Your task to perform on an android device: Open Google Chrome and open the bookmarks view Image 0: 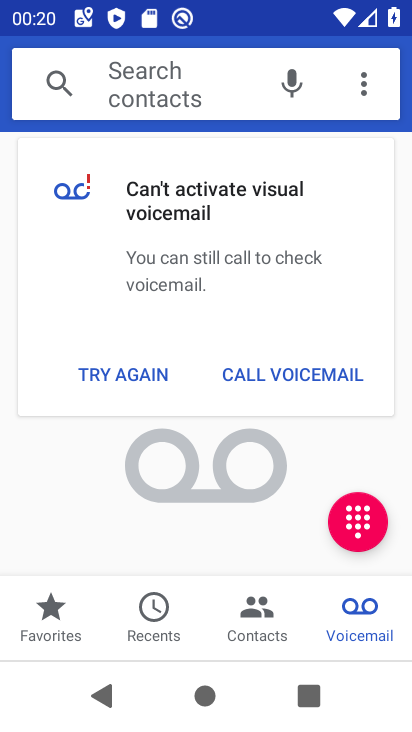
Step 0: press home button
Your task to perform on an android device: Open Google Chrome and open the bookmarks view Image 1: 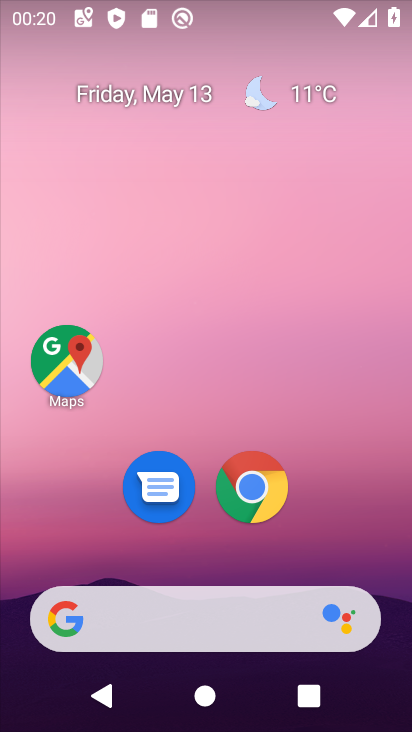
Step 1: click (260, 478)
Your task to perform on an android device: Open Google Chrome and open the bookmarks view Image 2: 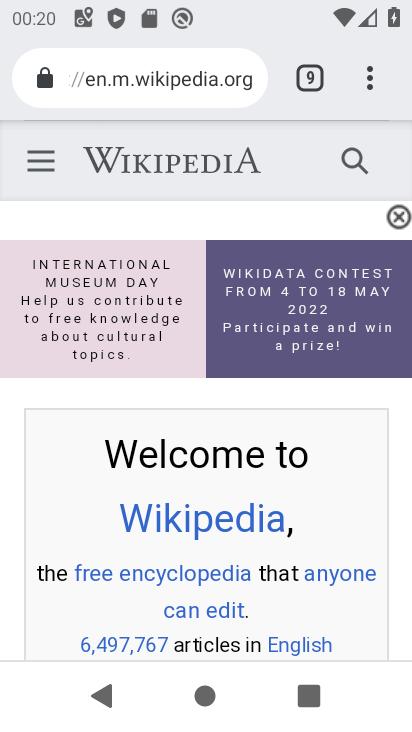
Step 2: click (388, 68)
Your task to perform on an android device: Open Google Chrome and open the bookmarks view Image 3: 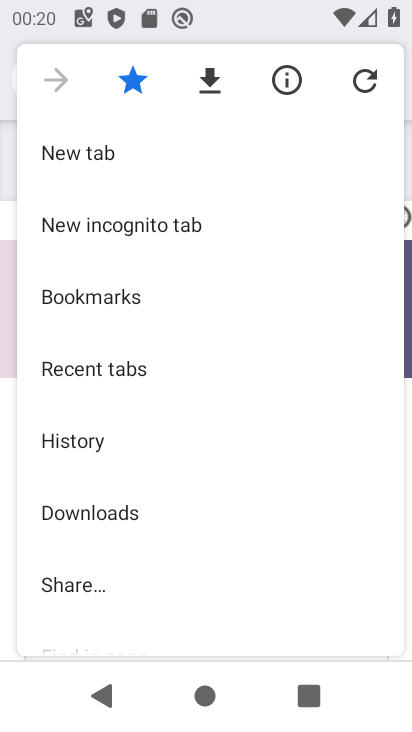
Step 3: click (122, 297)
Your task to perform on an android device: Open Google Chrome and open the bookmarks view Image 4: 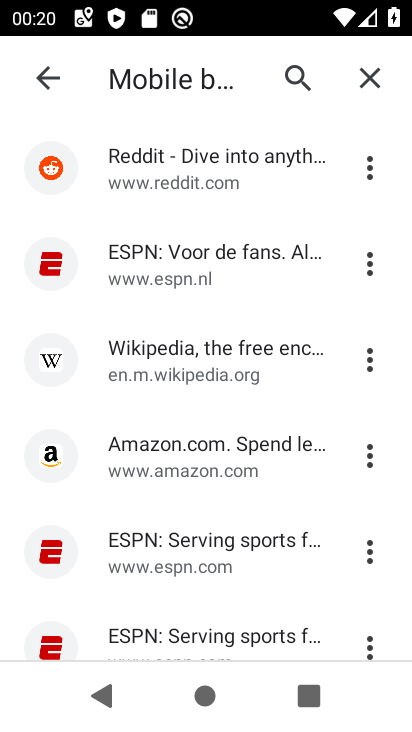
Step 4: task complete